Your task to perform on an android device: change the clock display to digital Image 0: 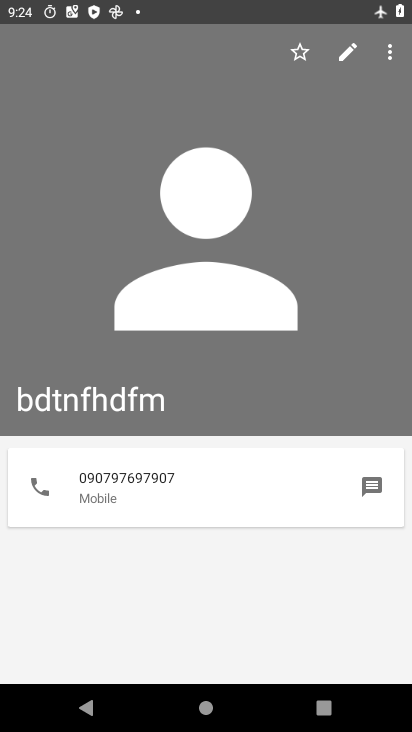
Step 0: press home button
Your task to perform on an android device: change the clock display to digital Image 1: 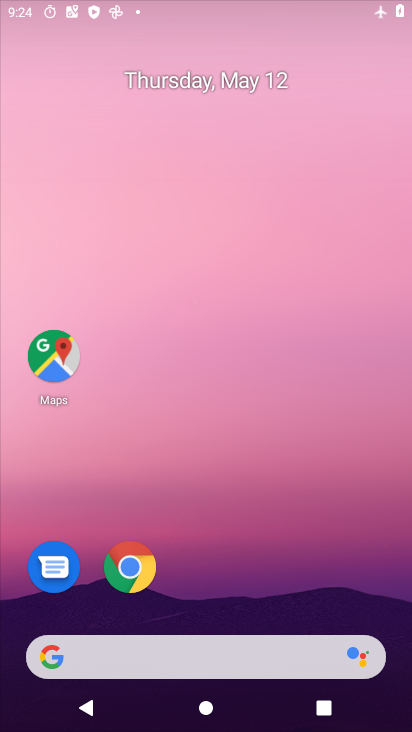
Step 1: drag from (232, 598) to (270, 242)
Your task to perform on an android device: change the clock display to digital Image 2: 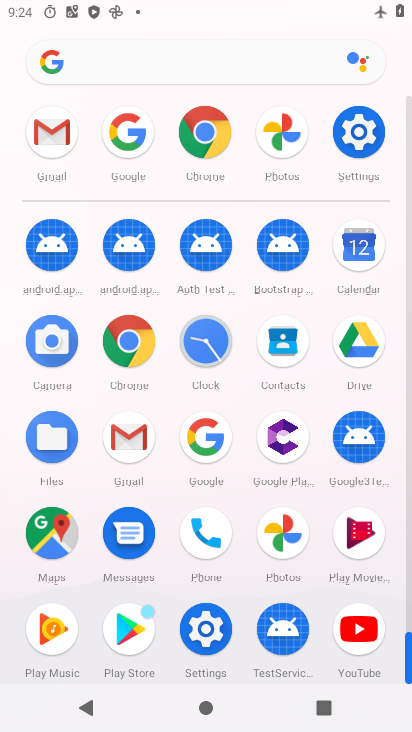
Step 2: click (224, 347)
Your task to perform on an android device: change the clock display to digital Image 3: 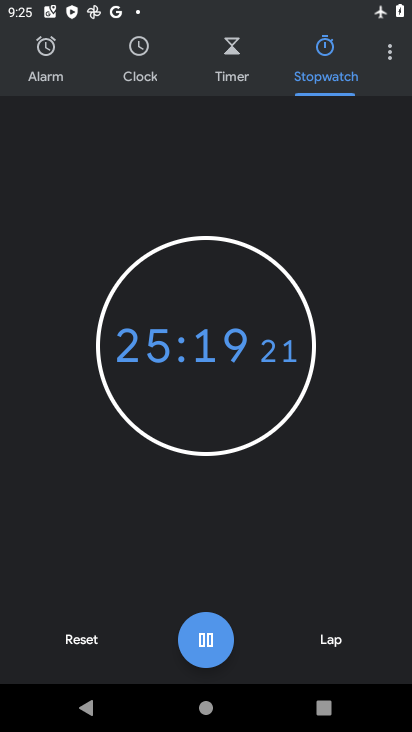
Step 3: click (390, 51)
Your task to perform on an android device: change the clock display to digital Image 4: 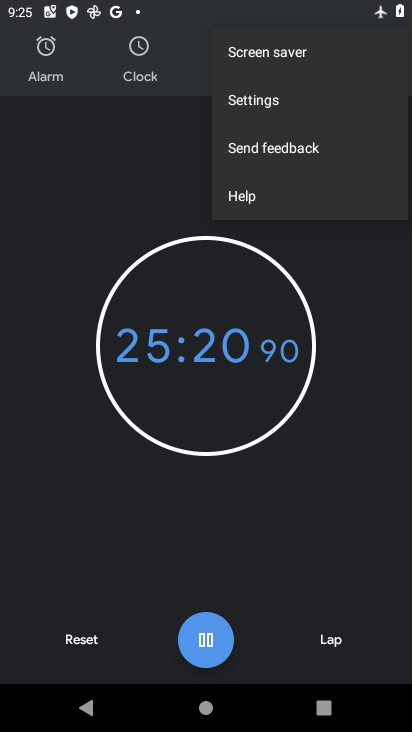
Step 4: click (258, 113)
Your task to perform on an android device: change the clock display to digital Image 5: 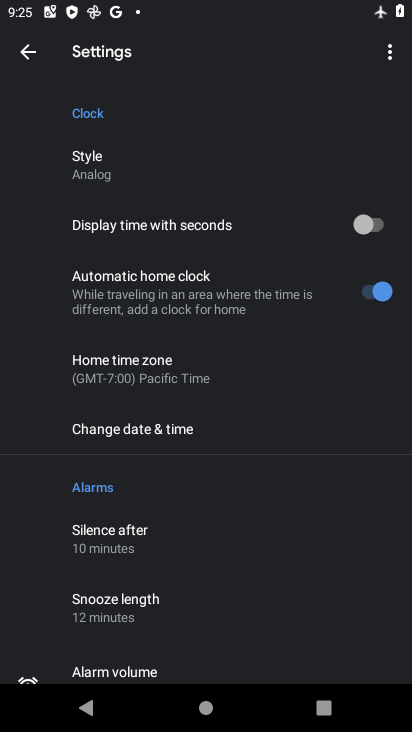
Step 5: click (141, 165)
Your task to perform on an android device: change the clock display to digital Image 6: 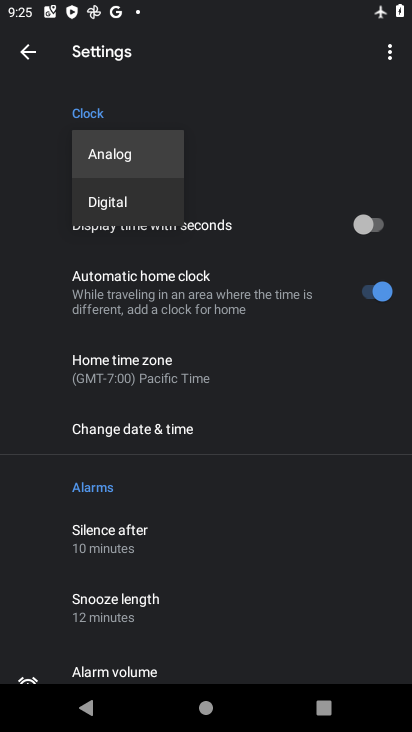
Step 6: click (132, 195)
Your task to perform on an android device: change the clock display to digital Image 7: 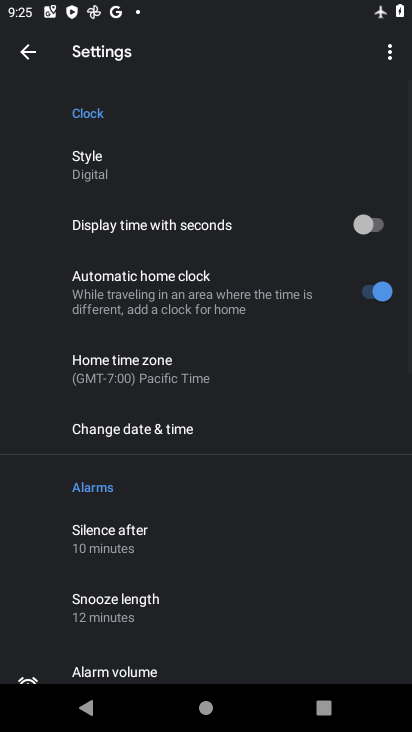
Step 7: task complete